Your task to perform on an android device: Open location settings Image 0: 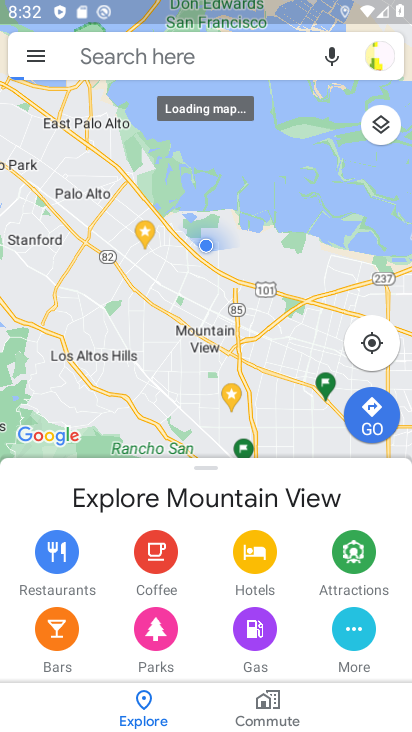
Step 0: press home button
Your task to perform on an android device: Open location settings Image 1: 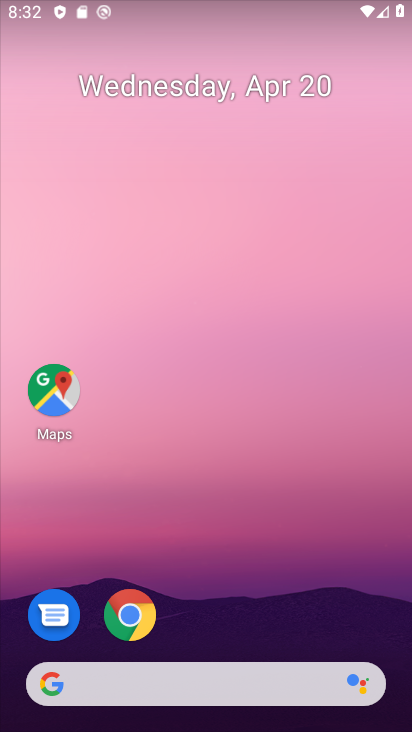
Step 1: drag from (253, 634) to (268, 39)
Your task to perform on an android device: Open location settings Image 2: 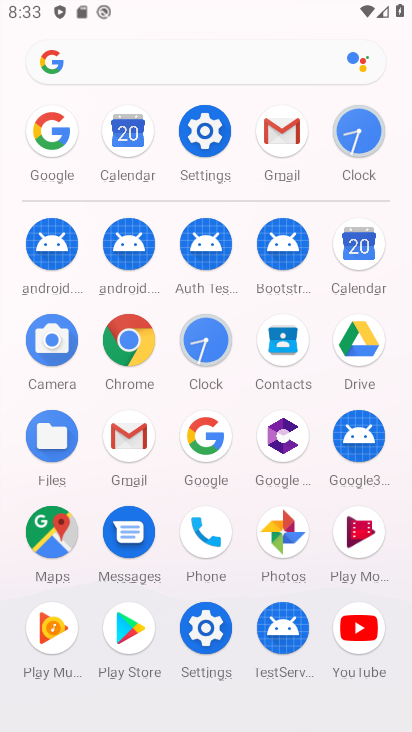
Step 2: click (205, 129)
Your task to perform on an android device: Open location settings Image 3: 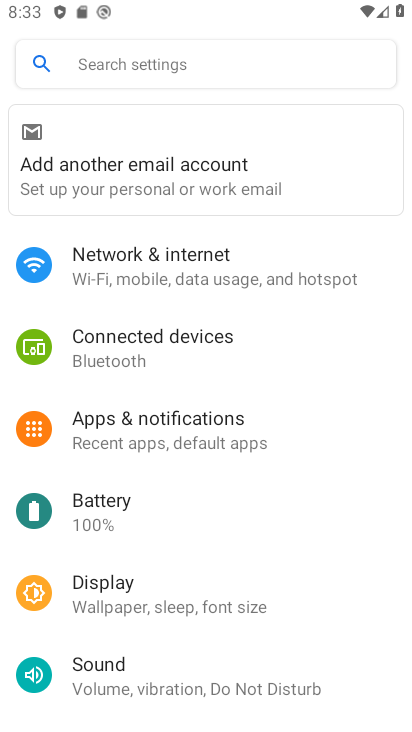
Step 3: drag from (157, 383) to (224, 297)
Your task to perform on an android device: Open location settings Image 4: 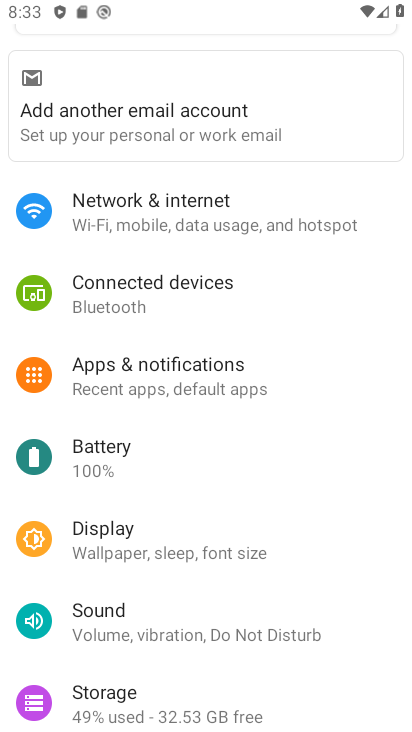
Step 4: drag from (174, 458) to (222, 392)
Your task to perform on an android device: Open location settings Image 5: 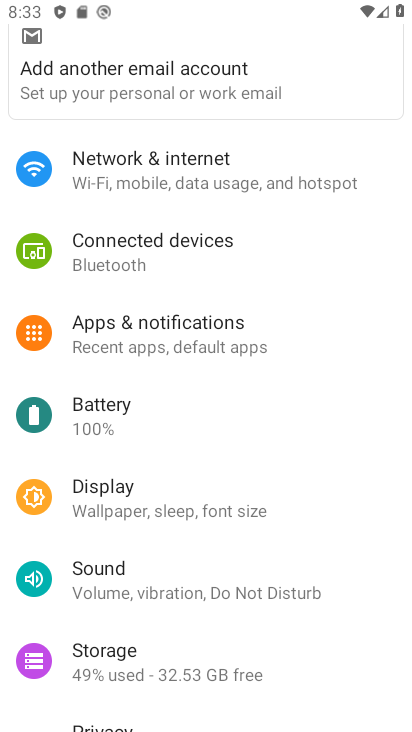
Step 5: drag from (159, 465) to (252, 368)
Your task to perform on an android device: Open location settings Image 6: 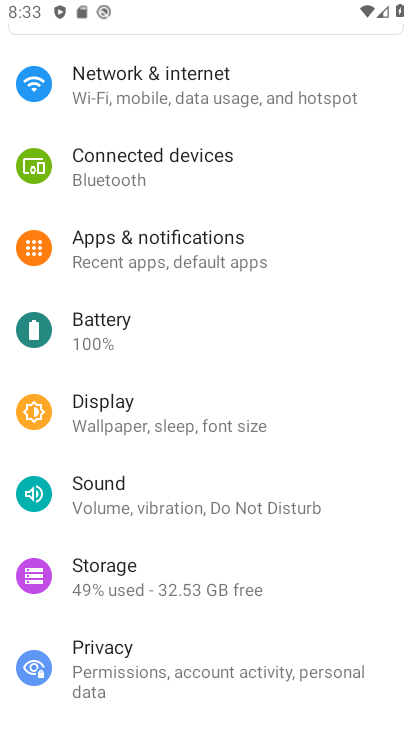
Step 6: drag from (170, 471) to (241, 373)
Your task to perform on an android device: Open location settings Image 7: 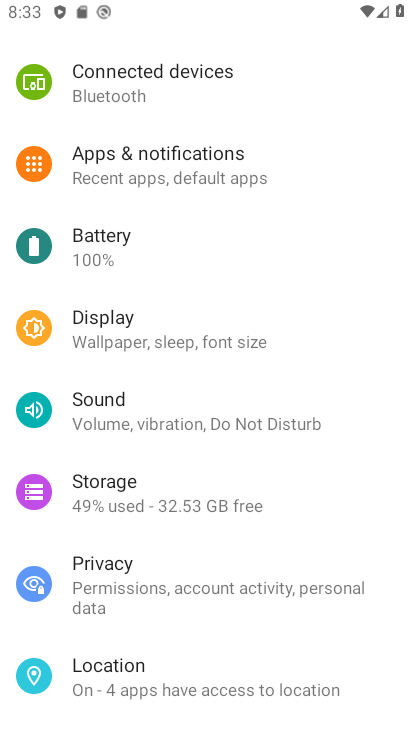
Step 7: drag from (178, 472) to (245, 377)
Your task to perform on an android device: Open location settings Image 8: 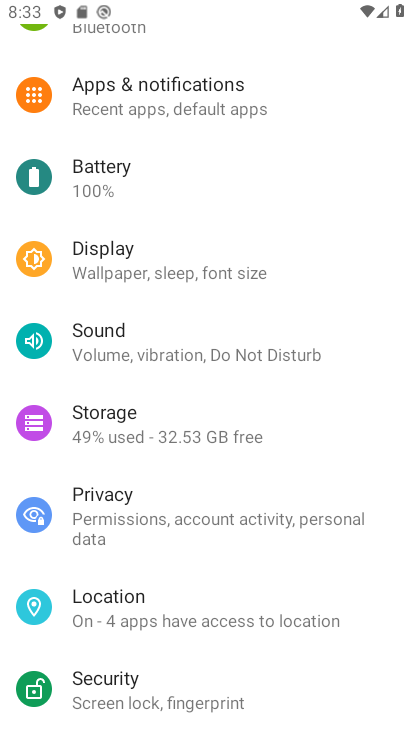
Step 8: click (130, 599)
Your task to perform on an android device: Open location settings Image 9: 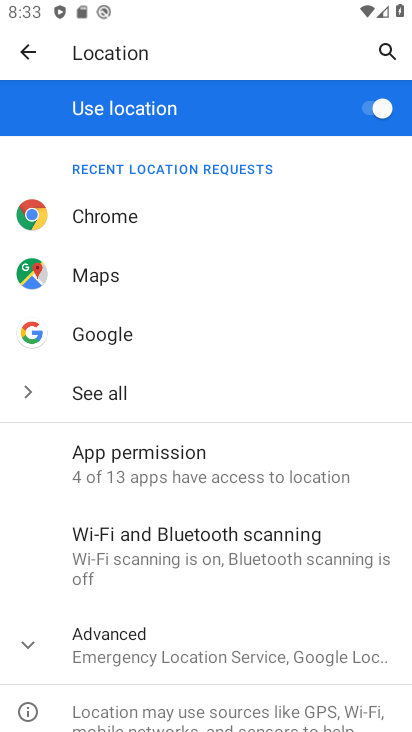
Step 9: task complete